Your task to perform on an android device: create a new album in the google photos Image 0: 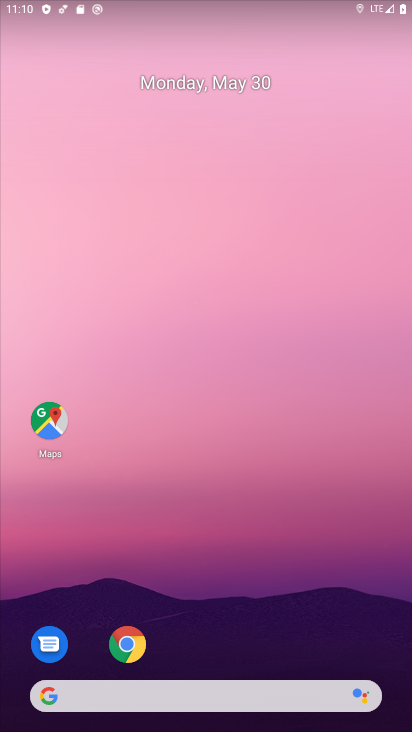
Step 0: drag from (304, 269) to (330, 122)
Your task to perform on an android device: create a new album in the google photos Image 1: 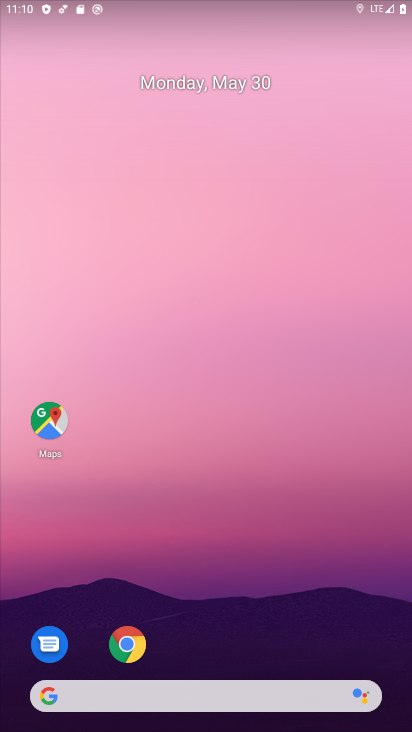
Step 1: drag from (238, 639) to (292, 3)
Your task to perform on an android device: create a new album in the google photos Image 2: 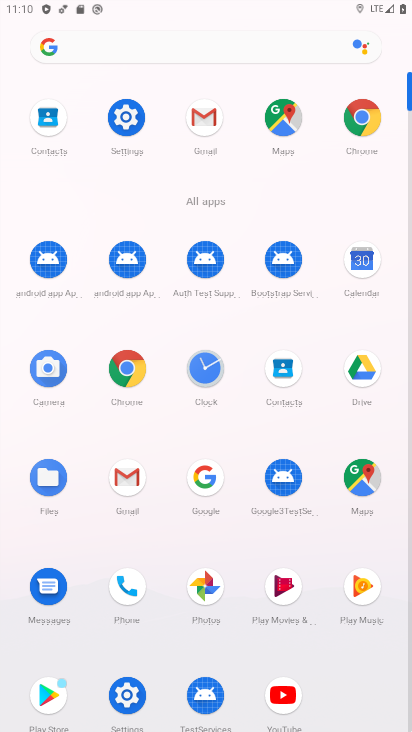
Step 2: click (195, 575)
Your task to perform on an android device: create a new album in the google photos Image 3: 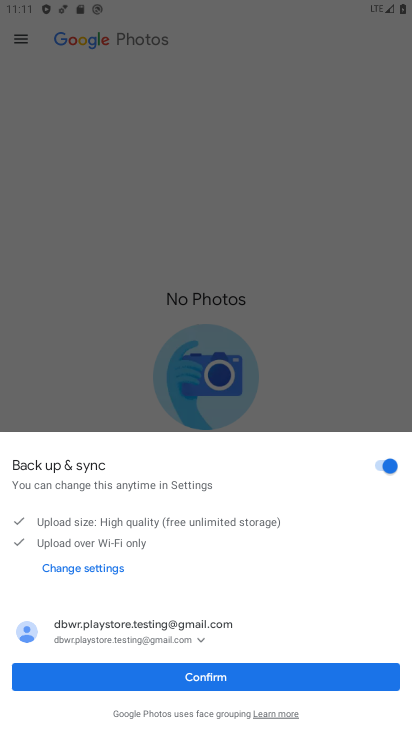
Step 3: click (101, 690)
Your task to perform on an android device: create a new album in the google photos Image 4: 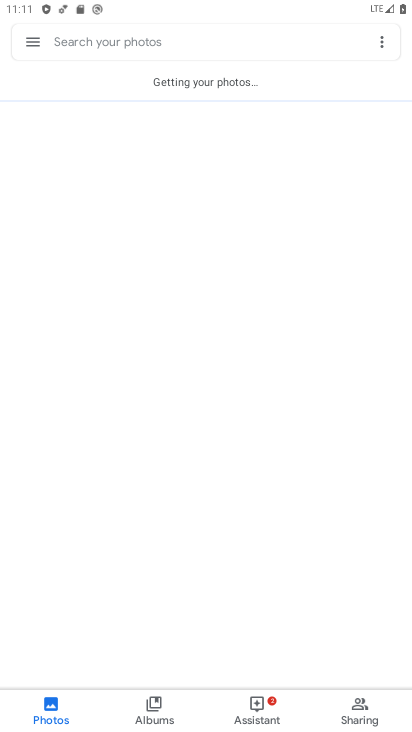
Step 4: click (144, 724)
Your task to perform on an android device: create a new album in the google photos Image 5: 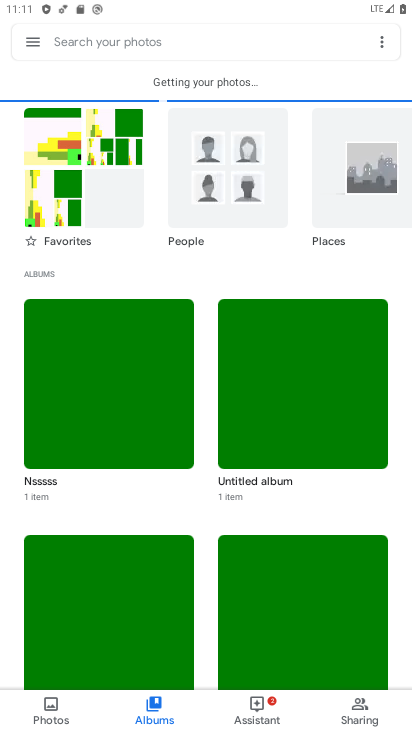
Step 5: click (376, 48)
Your task to perform on an android device: create a new album in the google photos Image 6: 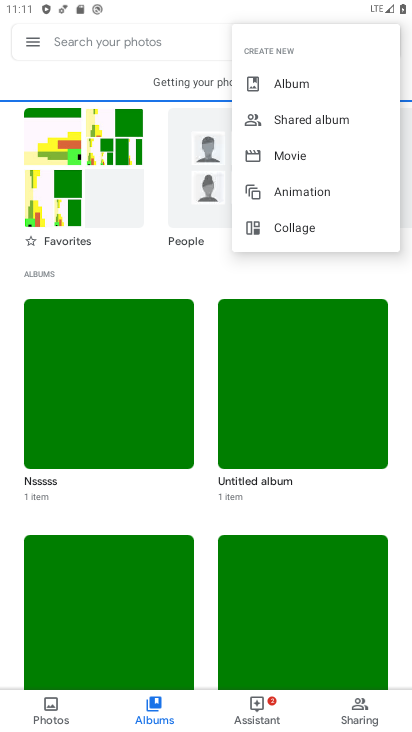
Step 6: click (287, 87)
Your task to perform on an android device: create a new album in the google photos Image 7: 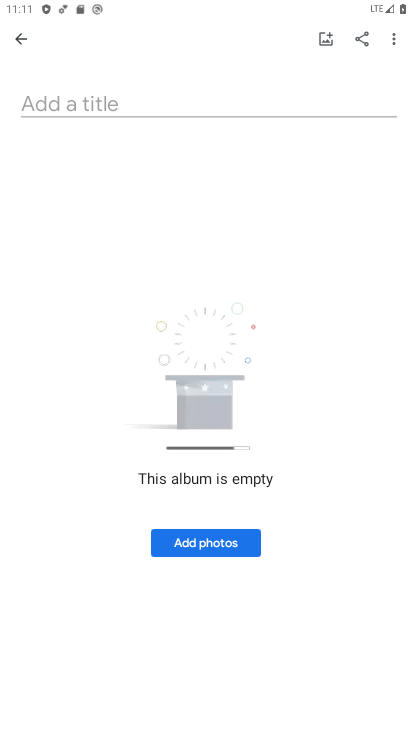
Step 7: type "lcojdocl"
Your task to perform on an android device: create a new album in the google photos Image 8: 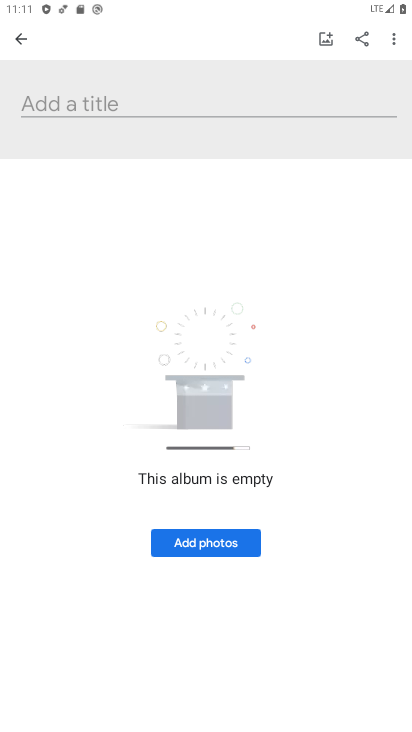
Step 8: click (128, 114)
Your task to perform on an android device: create a new album in the google photos Image 9: 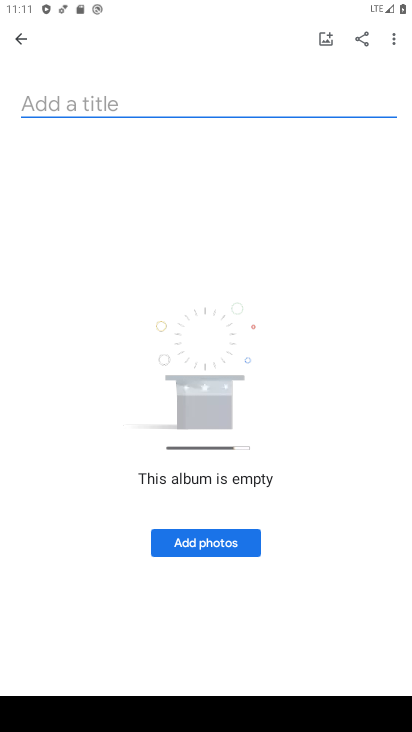
Step 9: type "refrw"
Your task to perform on an android device: create a new album in the google photos Image 10: 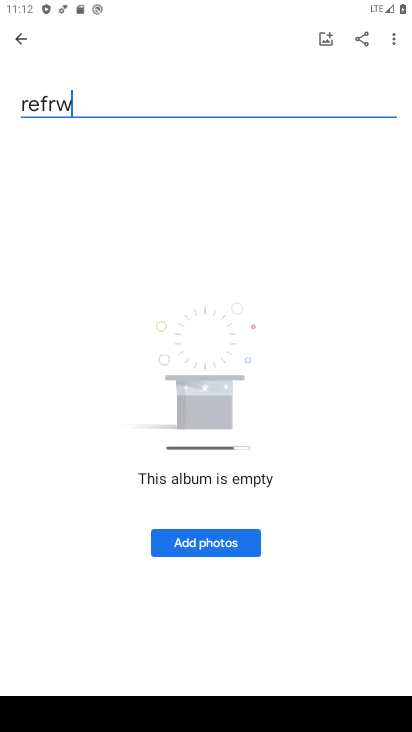
Step 10: click (223, 549)
Your task to perform on an android device: create a new album in the google photos Image 11: 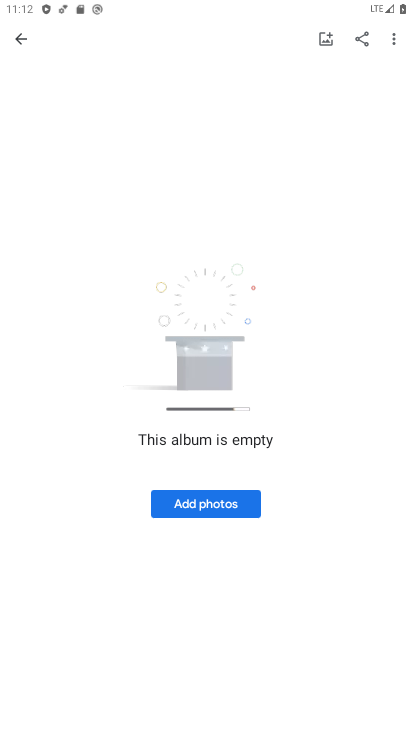
Step 11: click (186, 514)
Your task to perform on an android device: create a new album in the google photos Image 12: 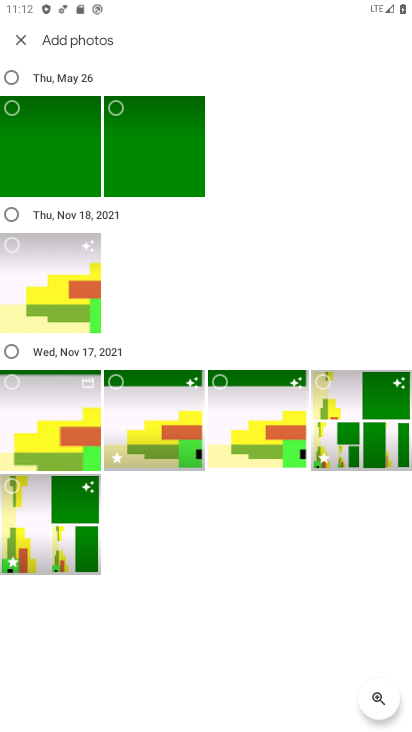
Step 12: click (8, 277)
Your task to perform on an android device: create a new album in the google photos Image 13: 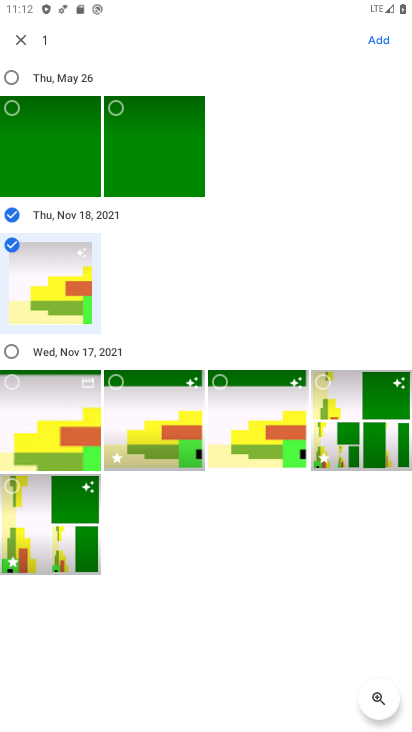
Step 13: click (10, 154)
Your task to perform on an android device: create a new album in the google photos Image 14: 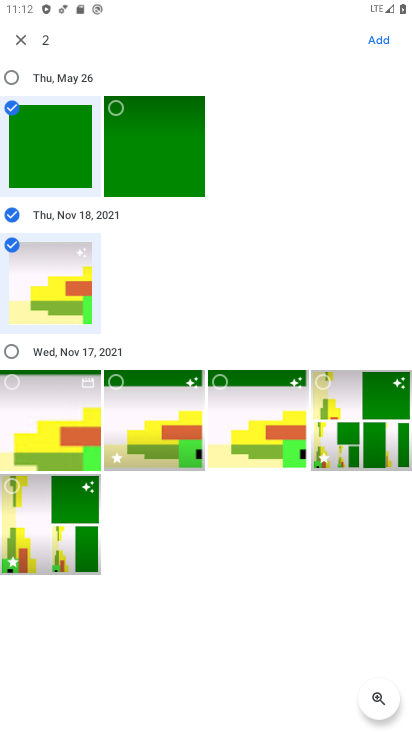
Step 14: click (149, 149)
Your task to perform on an android device: create a new album in the google photos Image 15: 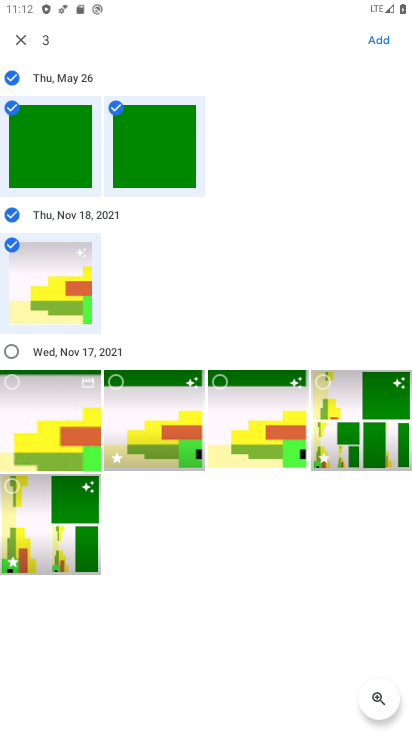
Step 15: click (387, 34)
Your task to perform on an android device: create a new album in the google photos Image 16: 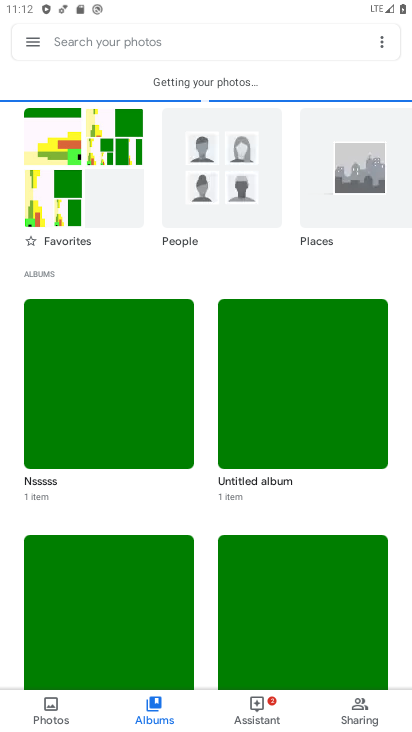
Step 16: task complete